Your task to perform on an android device: check battery use Image 0: 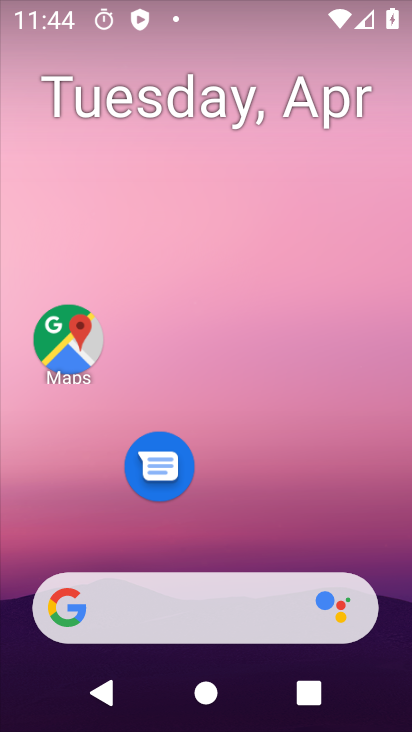
Step 0: drag from (344, 506) to (369, 83)
Your task to perform on an android device: check battery use Image 1: 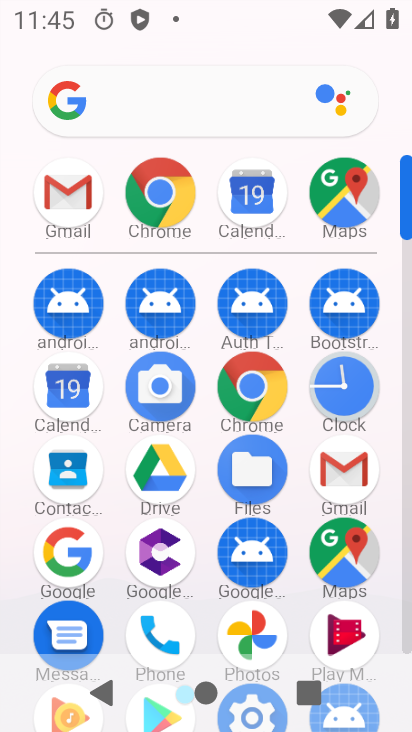
Step 1: click (410, 323)
Your task to perform on an android device: check battery use Image 2: 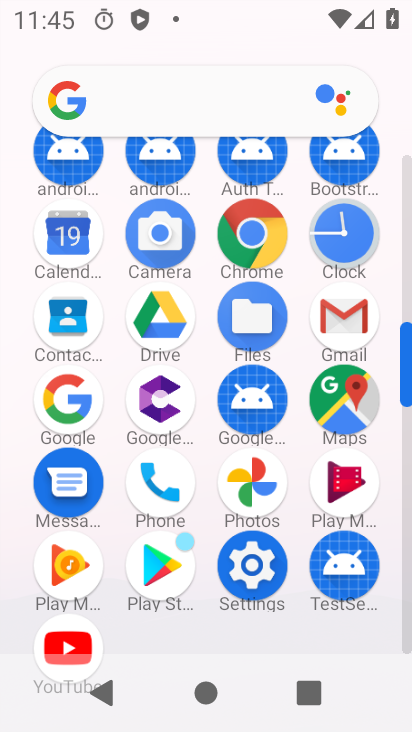
Step 2: click (266, 547)
Your task to perform on an android device: check battery use Image 3: 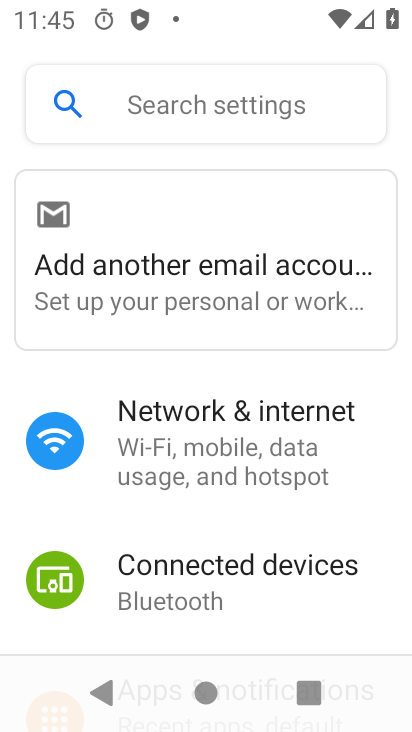
Step 3: drag from (178, 521) to (256, 258)
Your task to perform on an android device: check battery use Image 4: 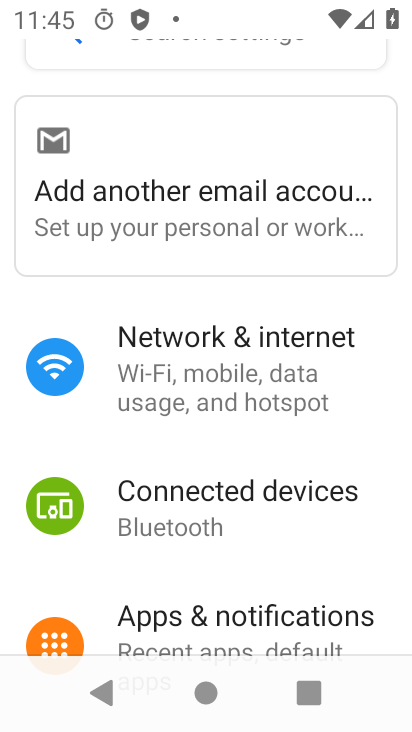
Step 4: drag from (220, 571) to (232, 426)
Your task to perform on an android device: check battery use Image 5: 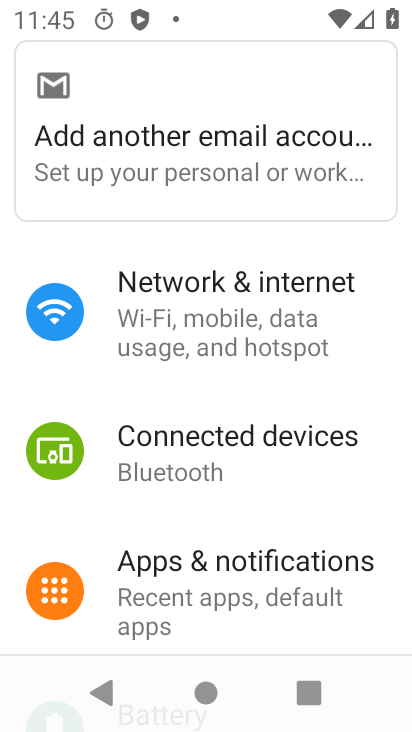
Step 5: drag from (219, 553) to (212, 196)
Your task to perform on an android device: check battery use Image 6: 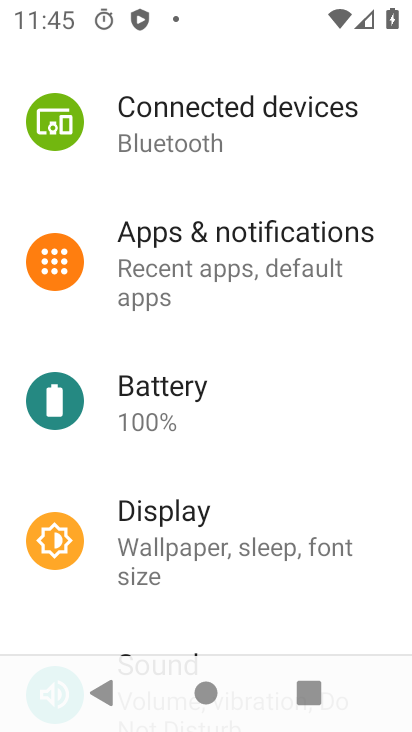
Step 6: drag from (210, 483) to (254, 292)
Your task to perform on an android device: check battery use Image 7: 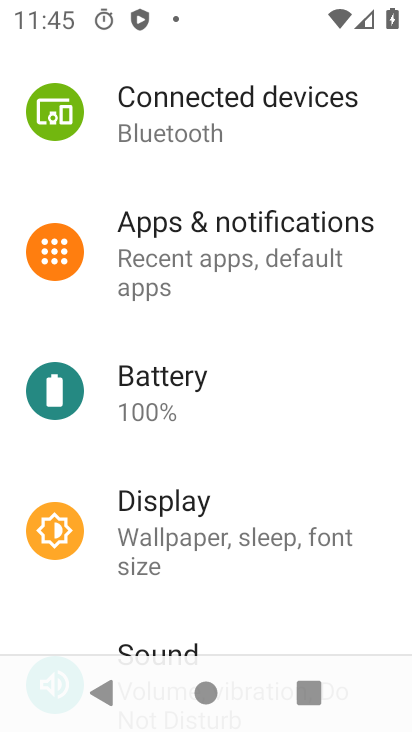
Step 7: click (245, 408)
Your task to perform on an android device: check battery use Image 8: 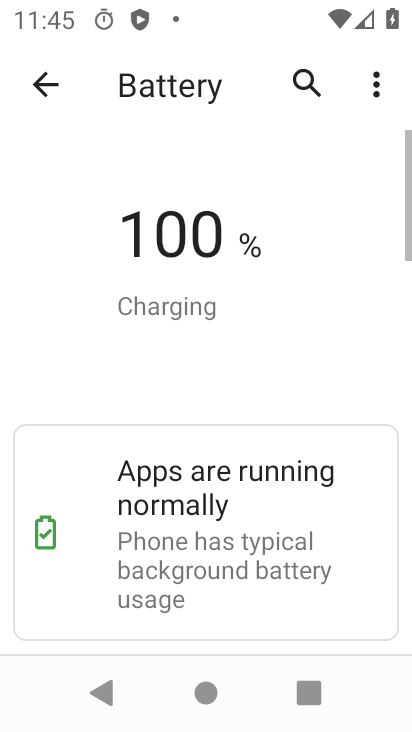
Step 8: task complete